Your task to perform on an android device: turn off location history Image 0: 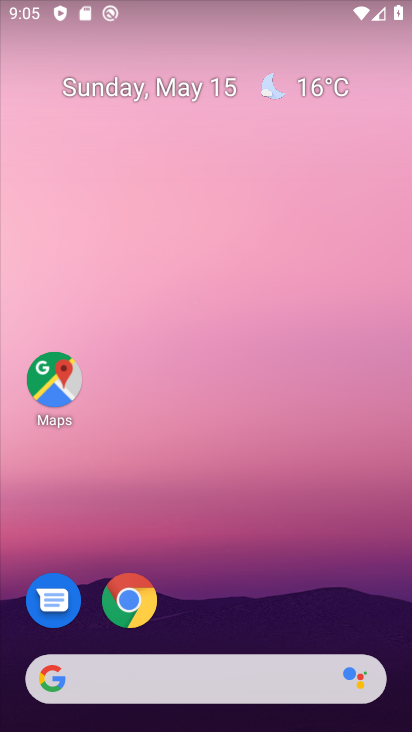
Step 0: drag from (187, 645) to (287, 111)
Your task to perform on an android device: turn off location history Image 1: 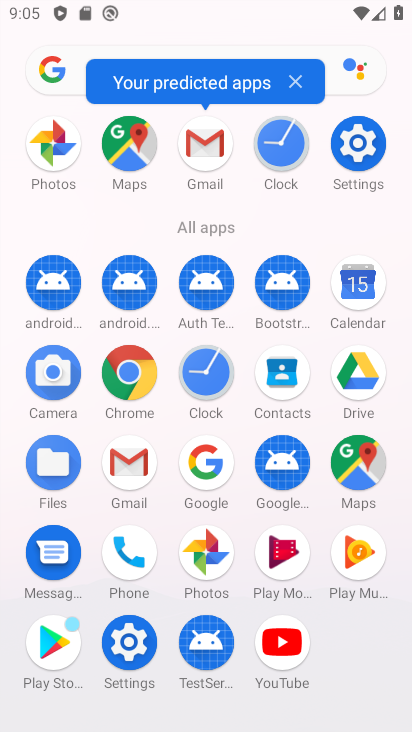
Step 1: click (131, 655)
Your task to perform on an android device: turn off location history Image 2: 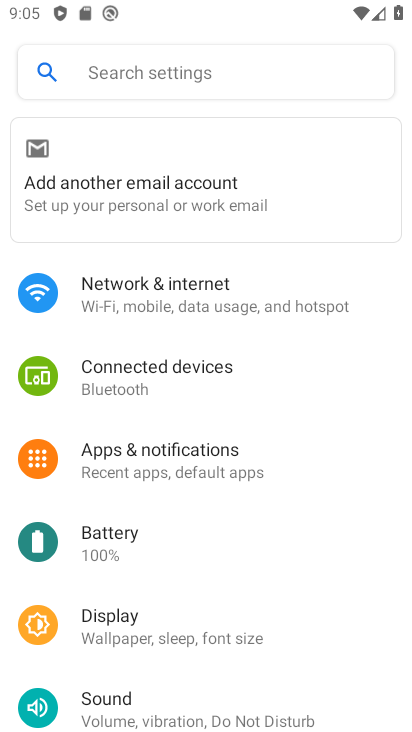
Step 2: drag from (161, 662) to (286, 278)
Your task to perform on an android device: turn off location history Image 3: 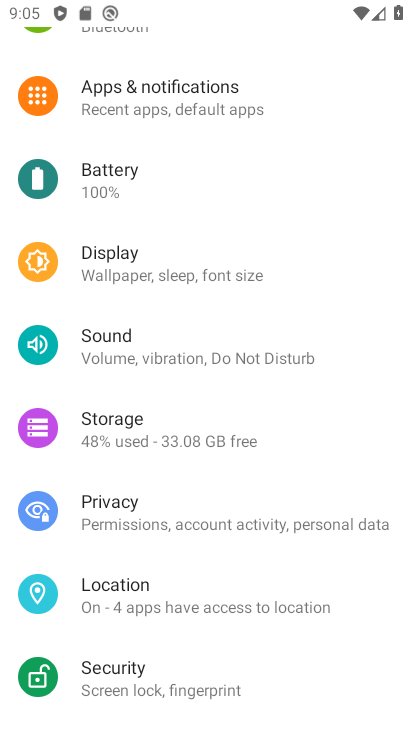
Step 3: click (176, 605)
Your task to perform on an android device: turn off location history Image 4: 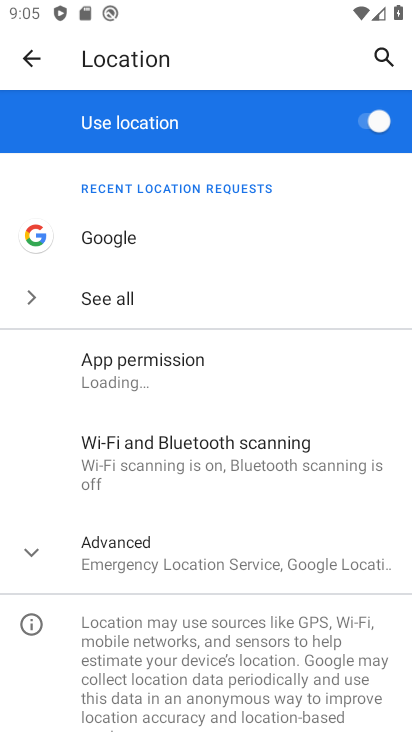
Step 4: click (207, 565)
Your task to perform on an android device: turn off location history Image 5: 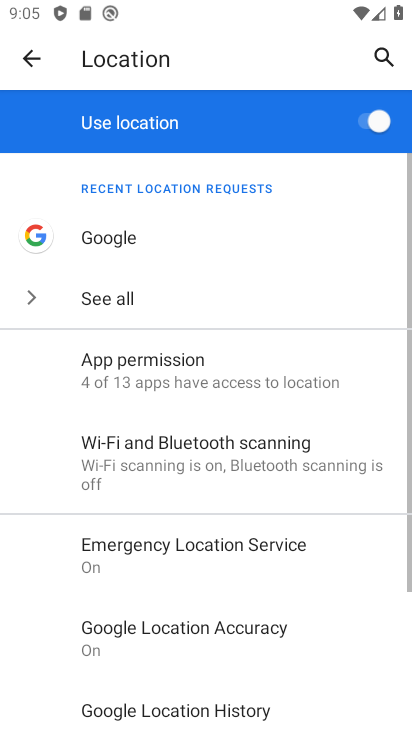
Step 5: drag from (210, 648) to (317, 367)
Your task to perform on an android device: turn off location history Image 6: 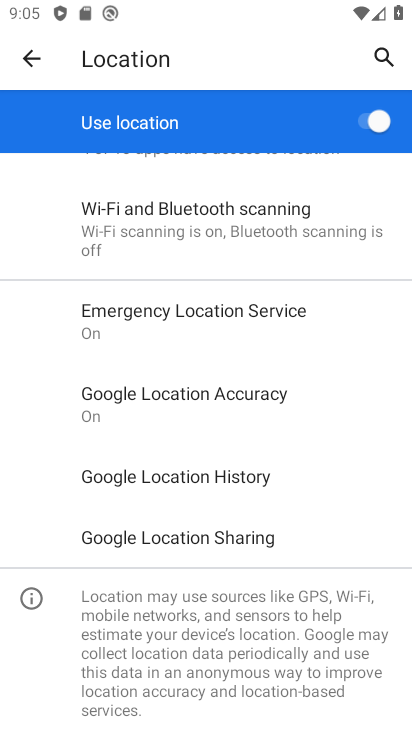
Step 6: click (258, 491)
Your task to perform on an android device: turn off location history Image 7: 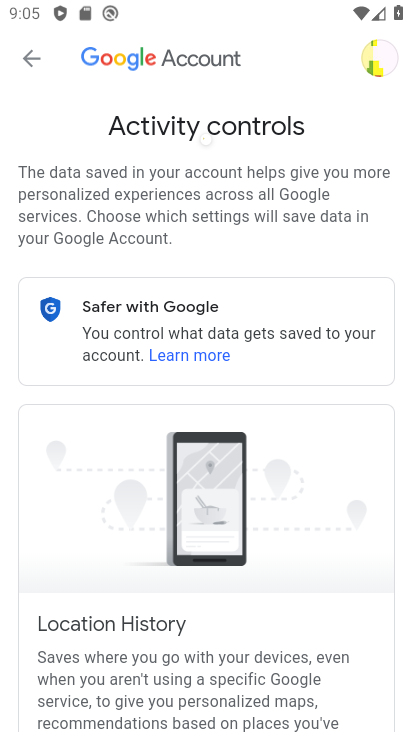
Step 7: task complete